Your task to perform on an android device: Open accessibility settings Image 0: 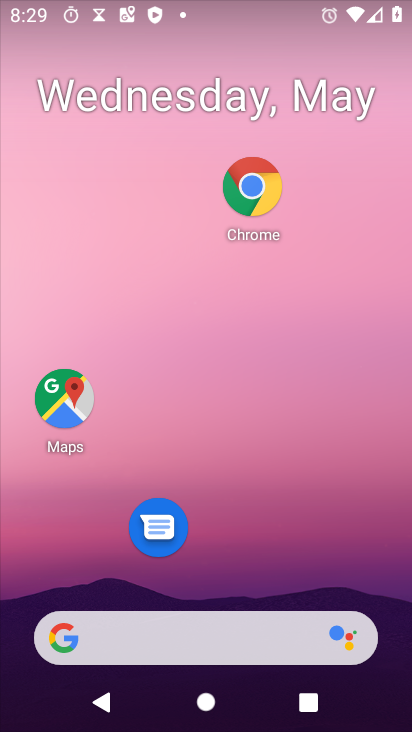
Step 0: drag from (277, 560) to (290, 91)
Your task to perform on an android device: Open accessibility settings Image 1: 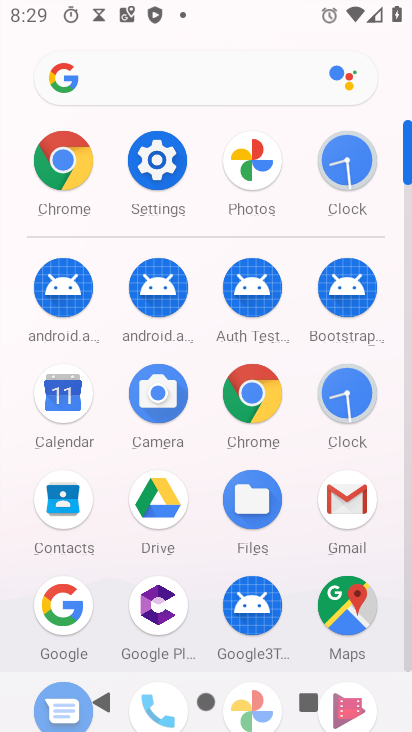
Step 1: click (166, 161)
Your task to perform on an android device: Open accessibility settings Image 2: 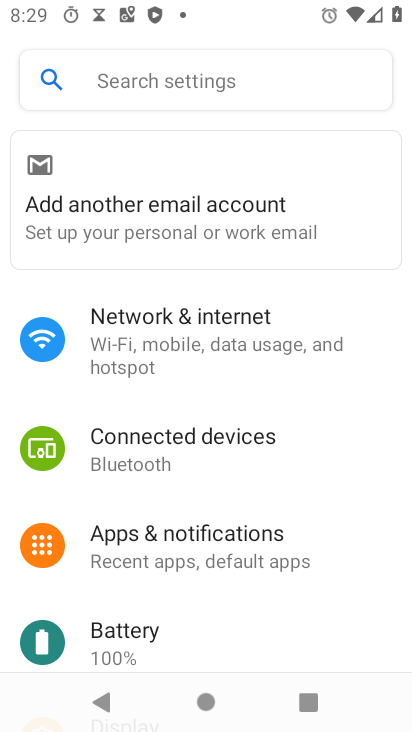
Step 2: drag from (276, 624) to (296, 194)
Your task to perform on an android device: Open accessibility settings Image 3: 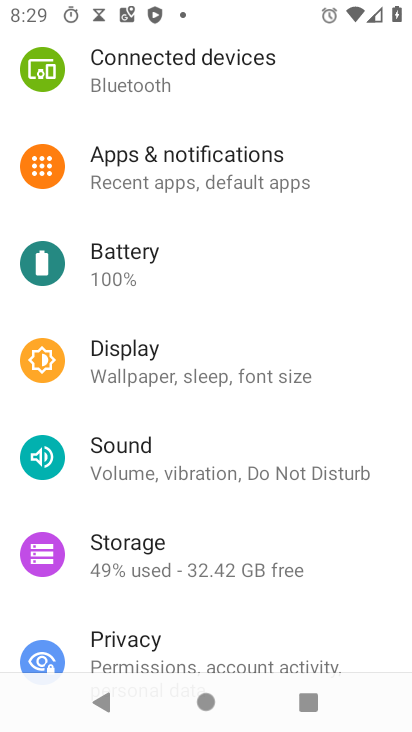
Step 3: drag from (344, 612) to (373, 221)
Your task to perform on an android device: Open accessibility settings Image 4: 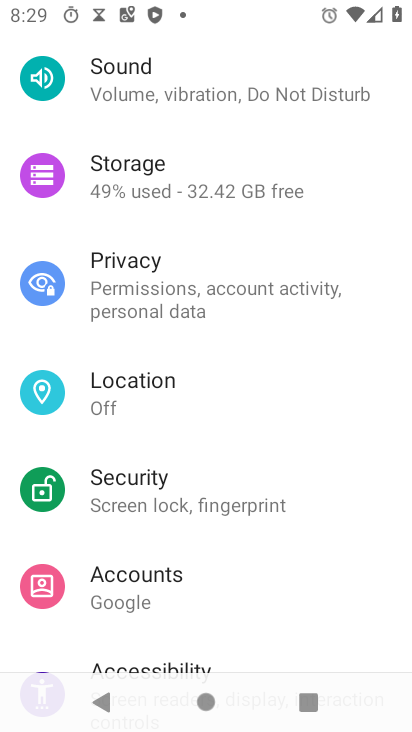
Step 4: drag from (290, 637) to (311, 280)
Your task to perform on an android device: Open accessibility settings Image 5: 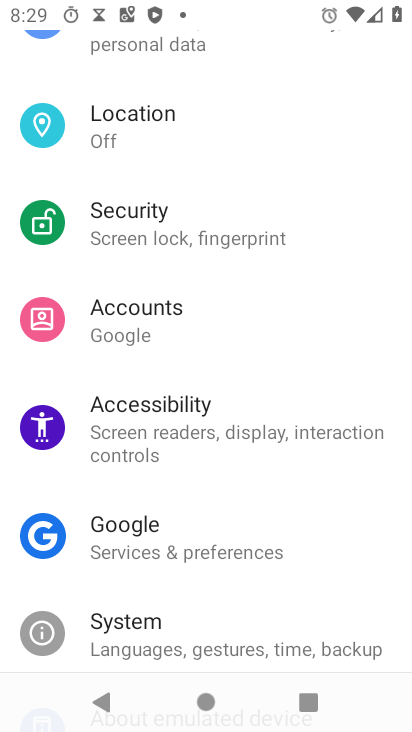
Step 5: click (141, 414)
Your task to perform on an android device: Open accessibility settings Image 6: 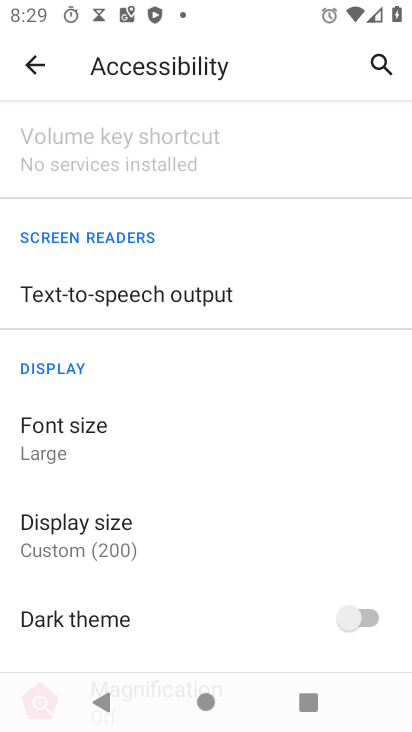
Step 6: task complete